Your task to perform on an android device: see tabs open on other devices in the chrome app Image 0: 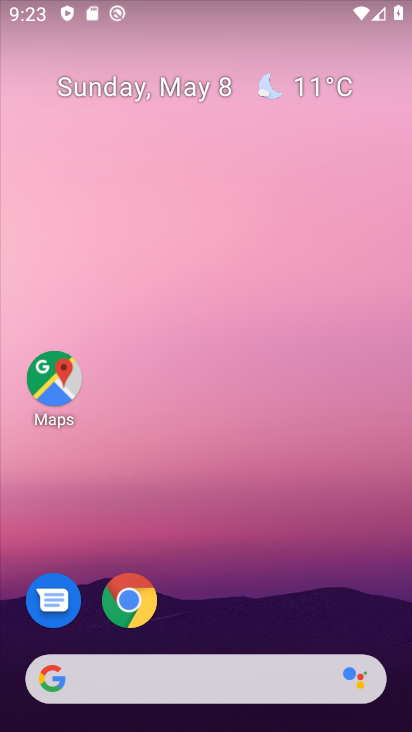
Step 0: drag from (242, 603) to (233, 46)
Your task to perform on an android device: see tabs open on other devices in the chrome app Image 1: 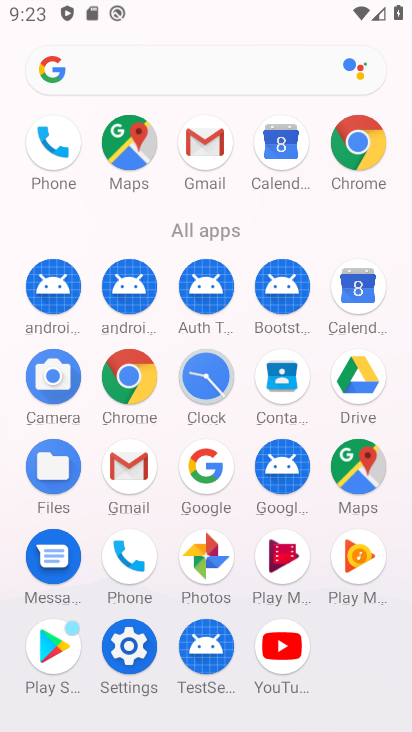
Step 1: click (4, 515)
Your task to perform on an android device: see tabs open on other devices in the chrome app Image 2: 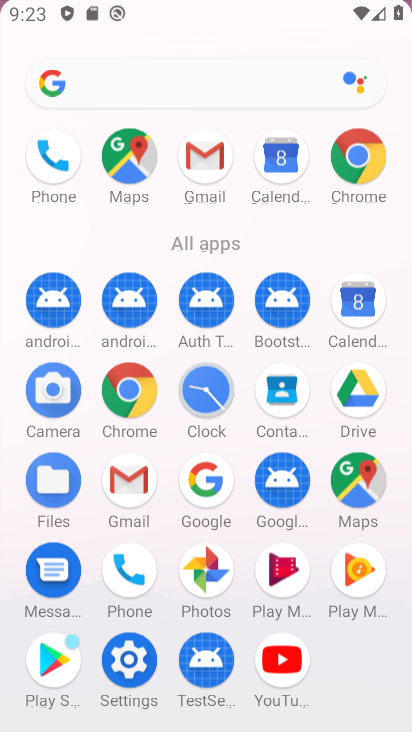
Step 2: drag from (0, 538) to (9, 208)
Your task to perform on an android device: see tabs open on other devices in the chrome app Image 3: 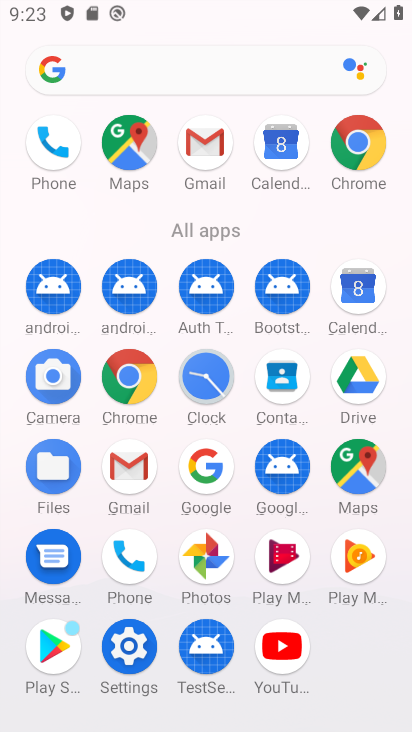
Step 3: click (130, 371)
Your task to perform on an android device: see tabs open on other devices in the chrome app Image 4: 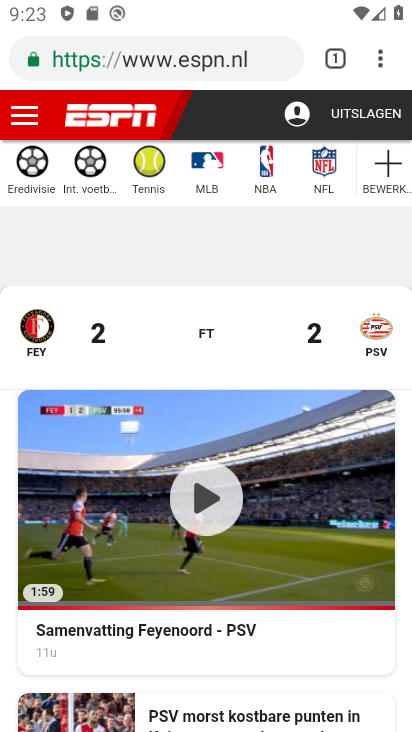
Step 4: task complete